Your task to perform on an android device: Search for Mexican restaurants on Maps Image 0: 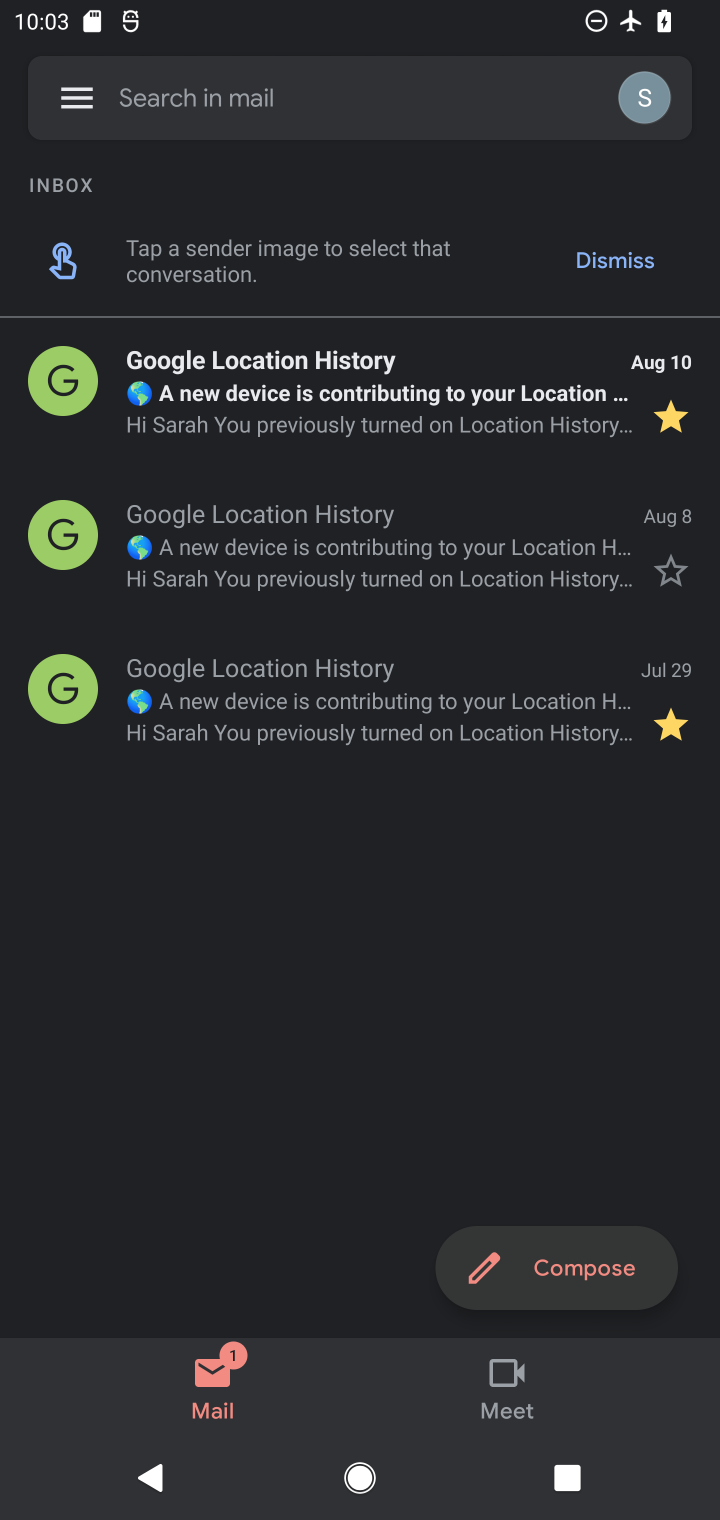
Step 0: press home button
Your task to perform on an android device: Search for Mexican restaurants on Maps Image 1: 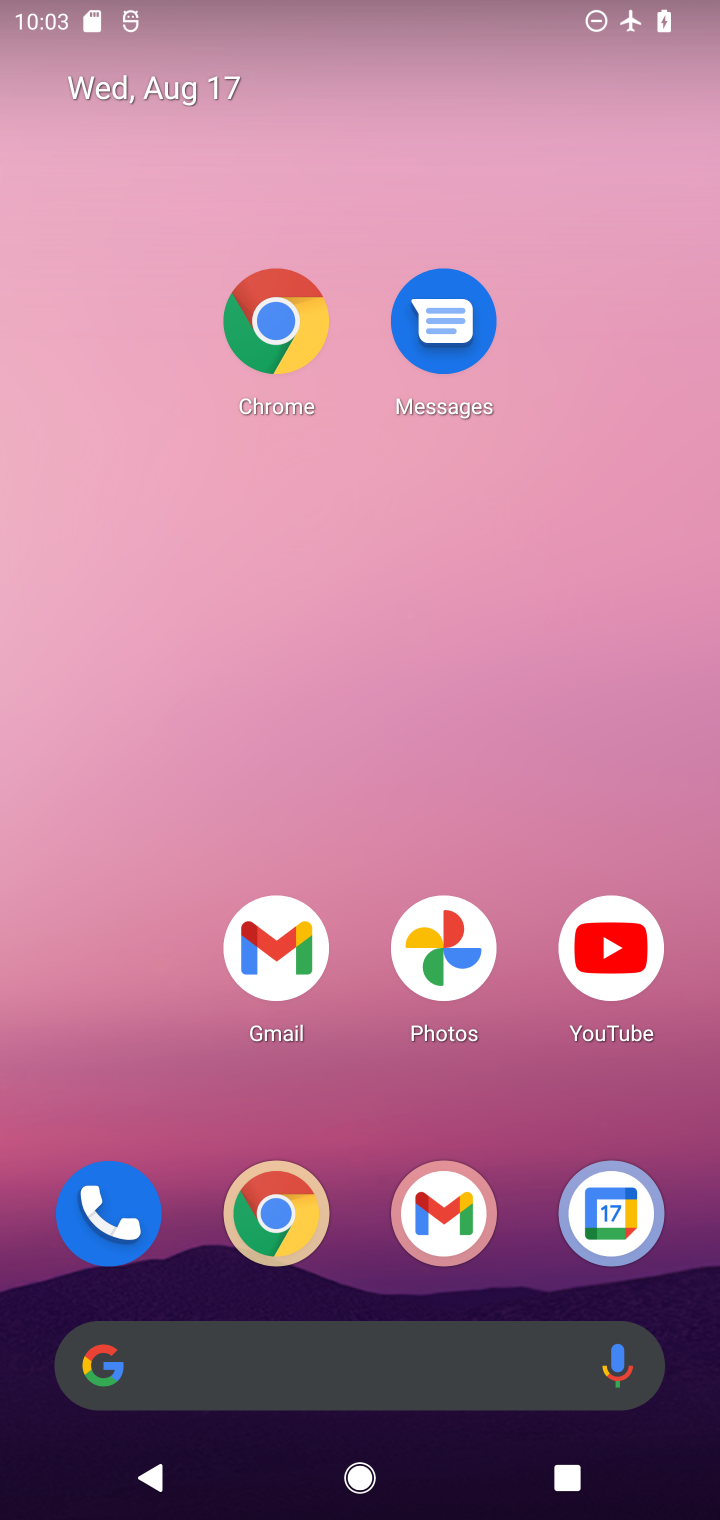
Step 1: drag from (372, 1259) to (351, 0)
Your task to perform on an android device: Search for Mexican restaurants on Maps Image 2: 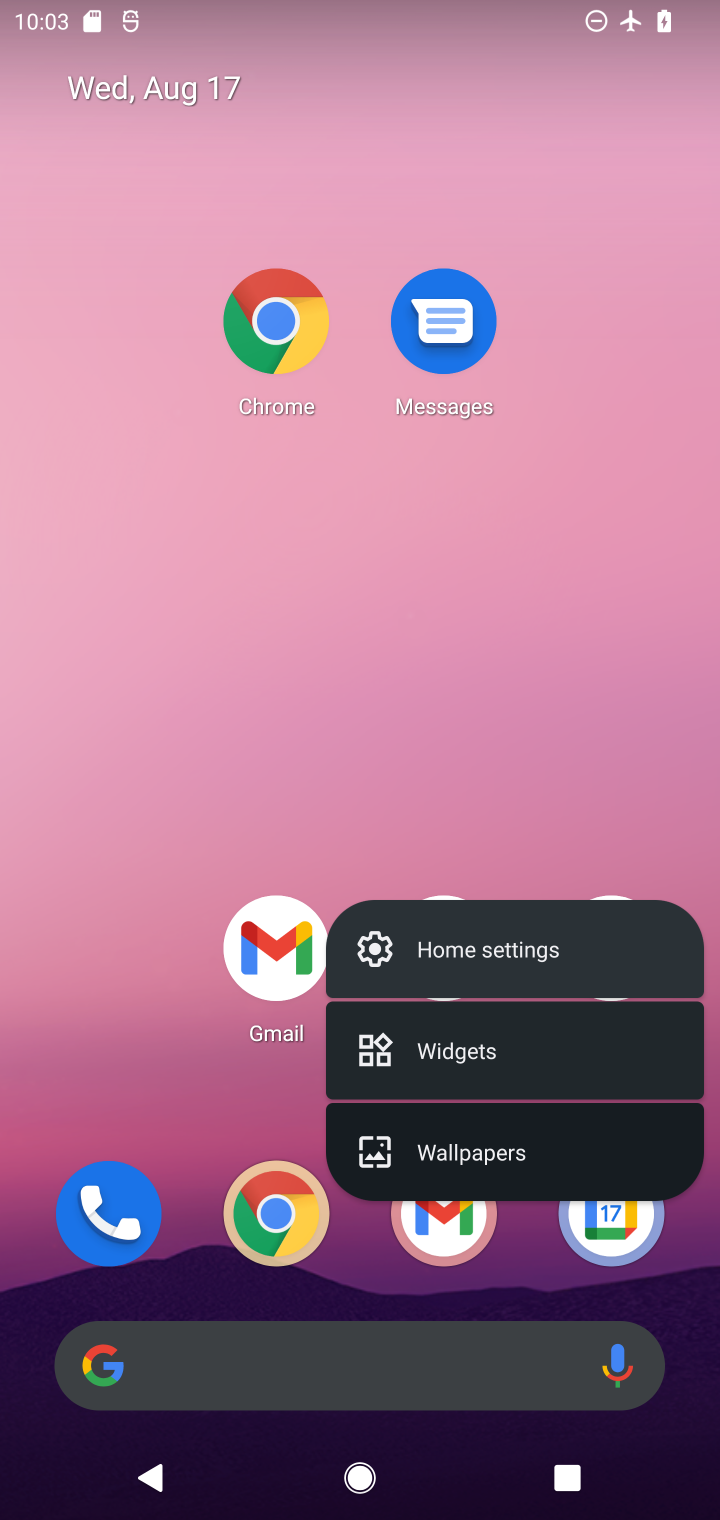
Step 2: click (180, 537)
Your task to perform on an android device: Search for Mexican restaurants on Maps Image 3: 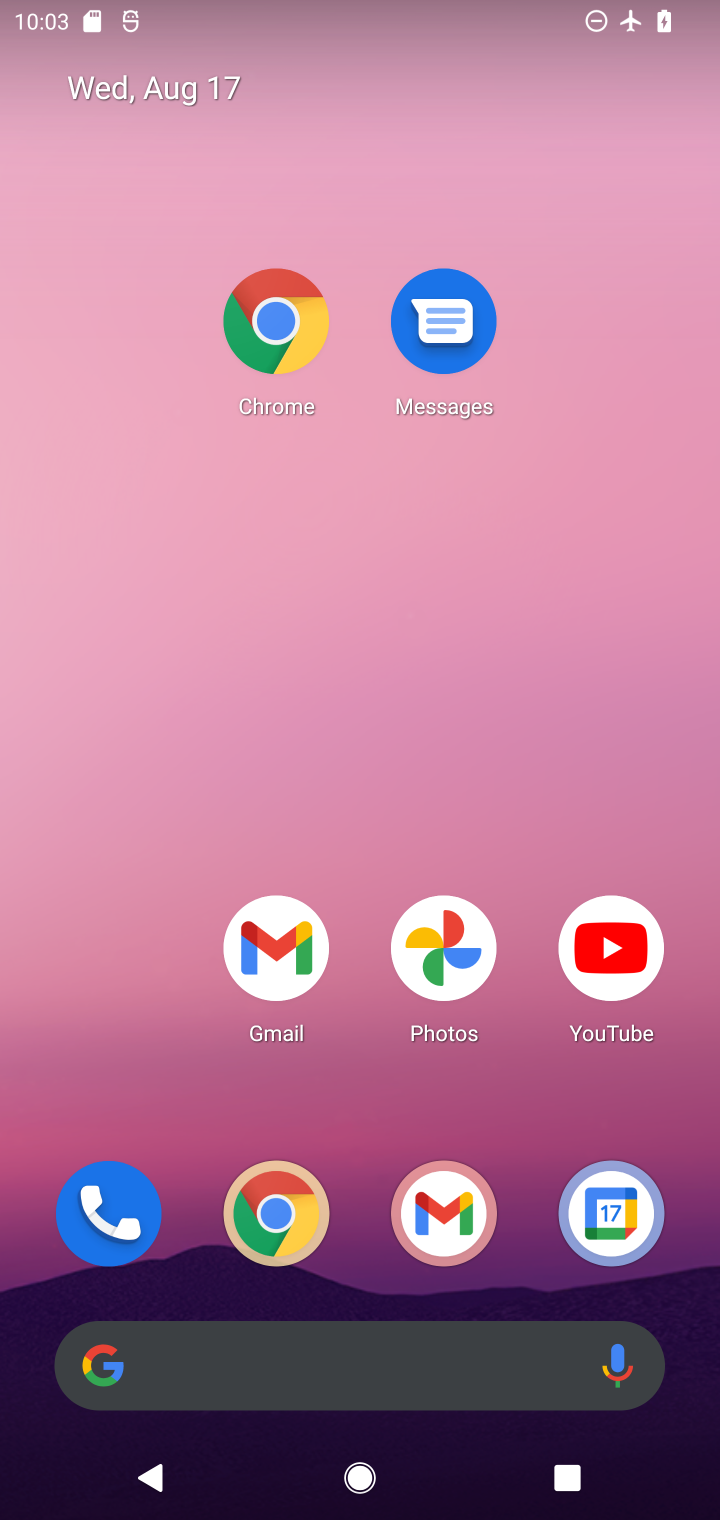
Step 3: drag from (370, 1310) to (329, 300)
Your task to perform on an android device: Search for Mexican restaurants on Maps Image 4: 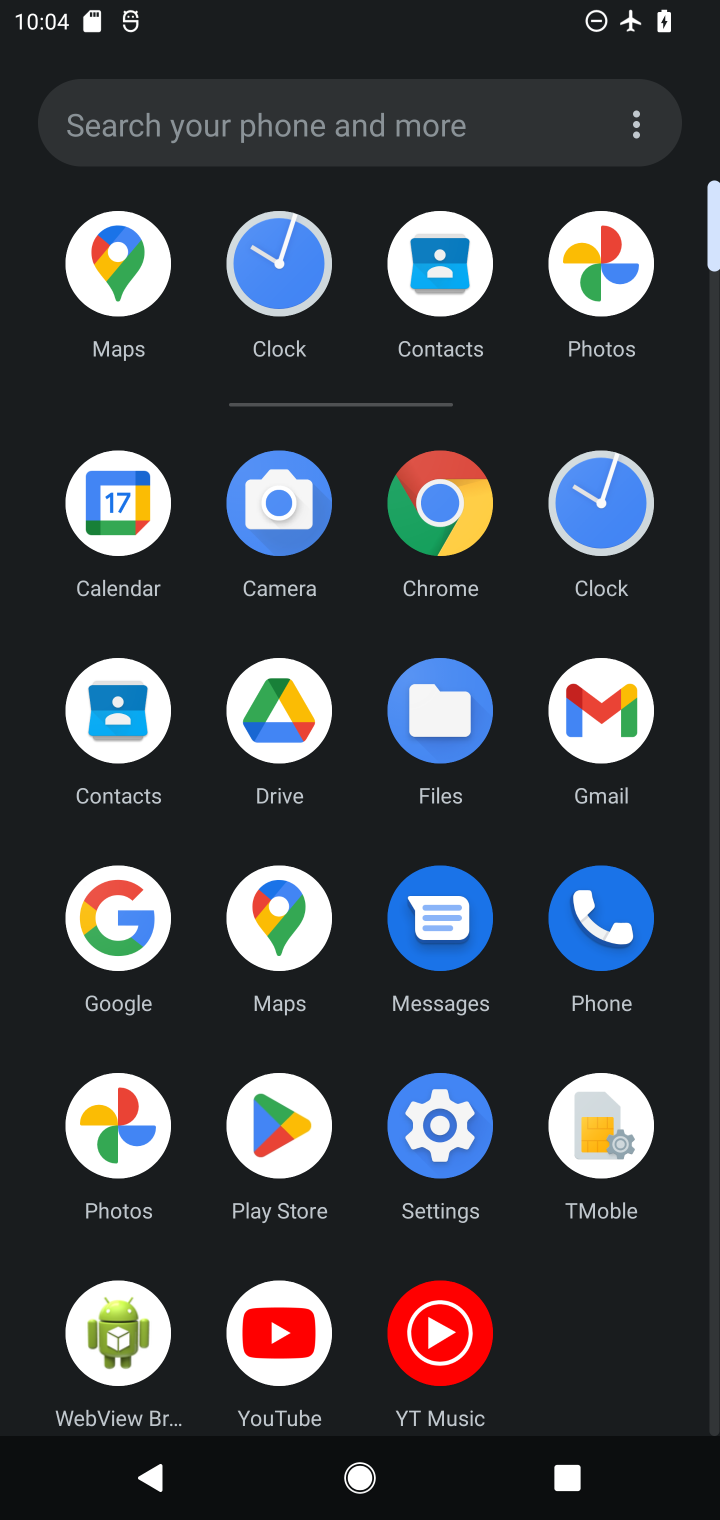
Step 4: click (303, 951)
Your task to perform on an android device: Search for Mexican restaurants on Maps Image 5: 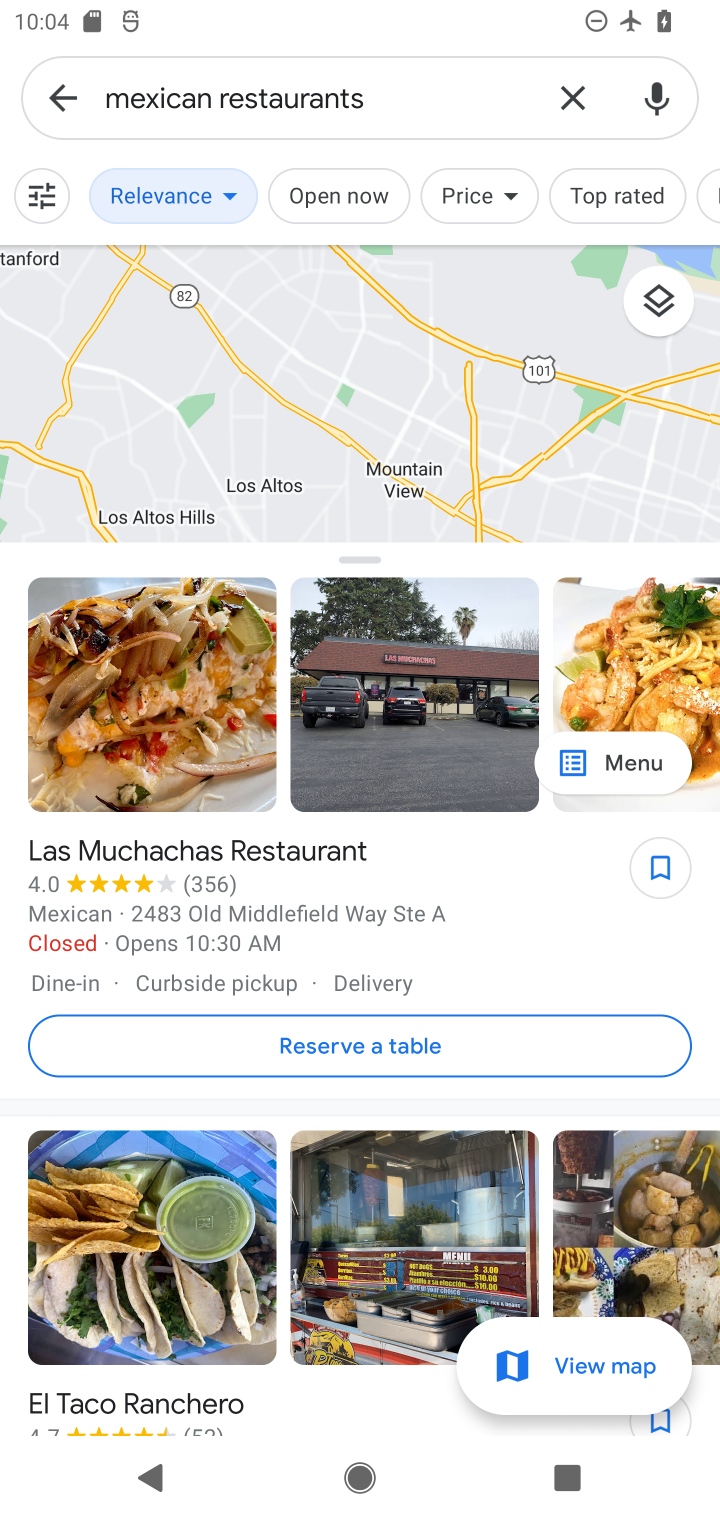
Step 5: task complete